Your task to perform on an android device: Go to Amazon Image 0: 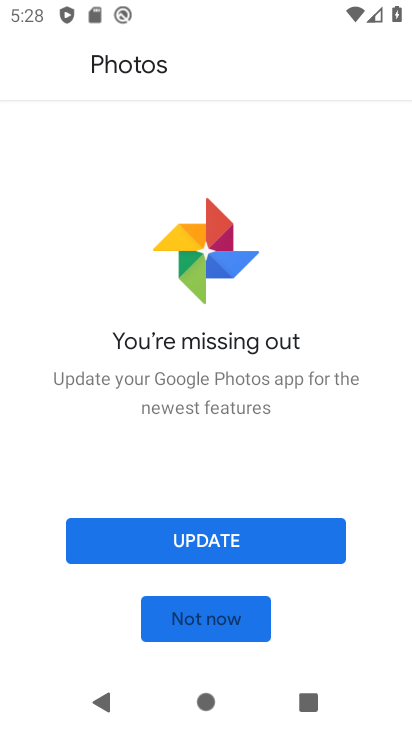
Step 0: press home button
Your task to perform on an android device: Go to Amazon Image 1: 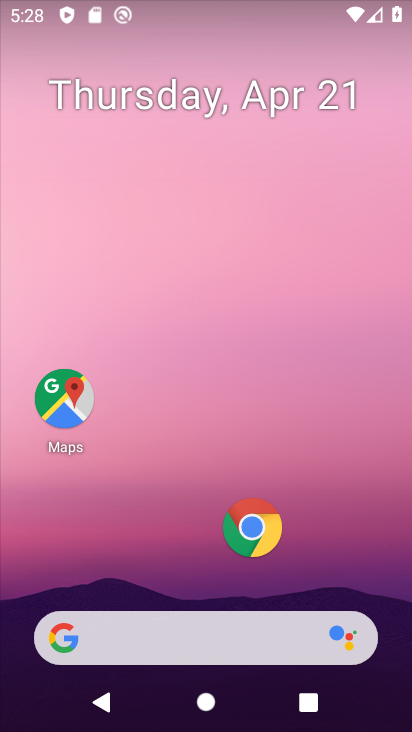
Step 1: click (251, 523)
Your task to perform on an android device: Go to Amazon Image 2: 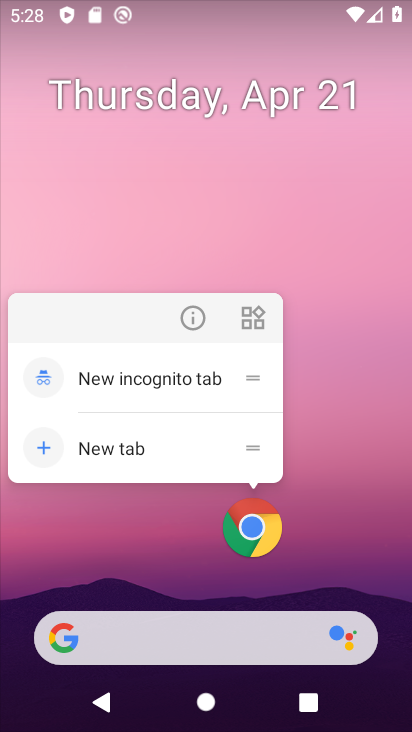
Step 2: click (259, 523)
Your task to perform on an android device: Go to Amazon Image 3: 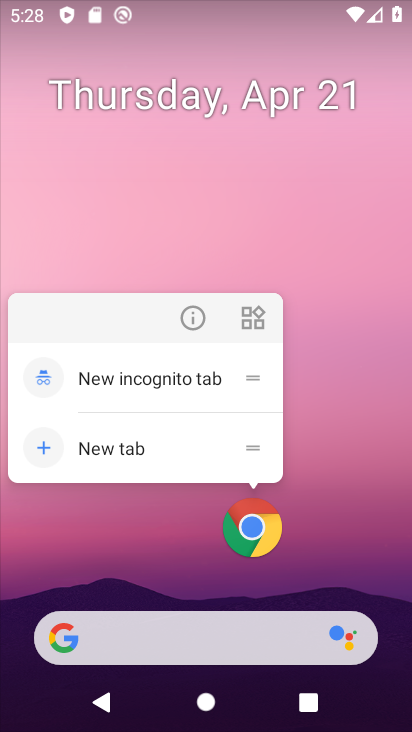
Step 3: click (244, 534)
Your task to perform on an android device: Go to Amazon Image 4: 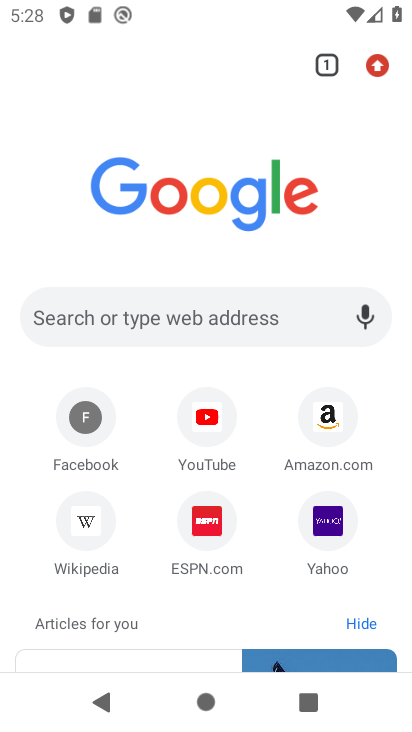
Step 4: click (333, 421)
Your task to perform on an android device: Go to Amazon Image 5: 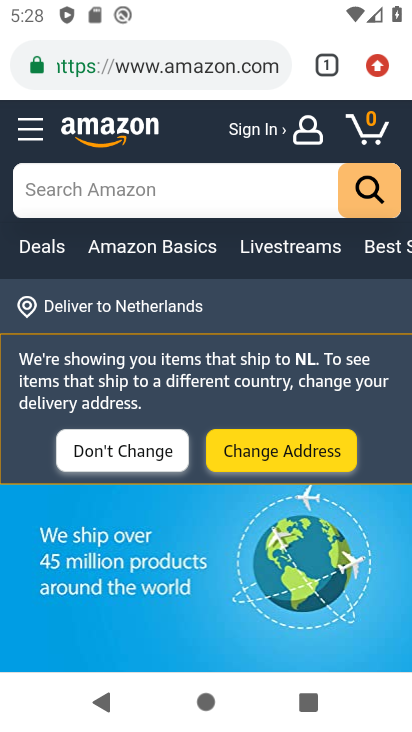
Step 5: task complete